Your task to perform on an android device: change timer sound Image 0: 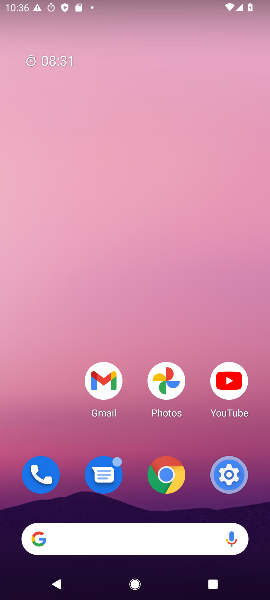
Step 0: drag from (124, 510) to (125, 57)
Your task to perform on an android device: change timer sound Image 1: 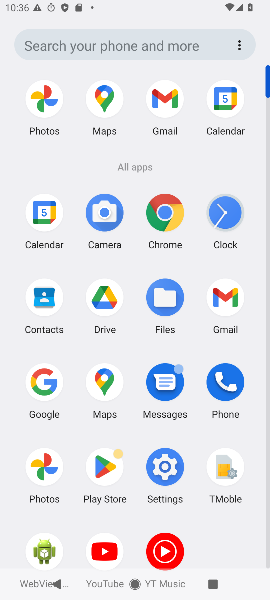
Step 1: click (222, 226)
Your task to perform on an android device: change timer sound Image 2: 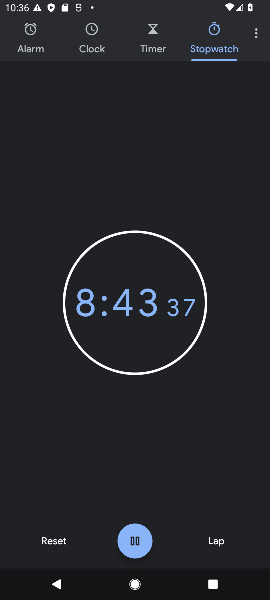
Step 2: click (53, 534)
Your task to perform on an android device: change timer sound Image 3: 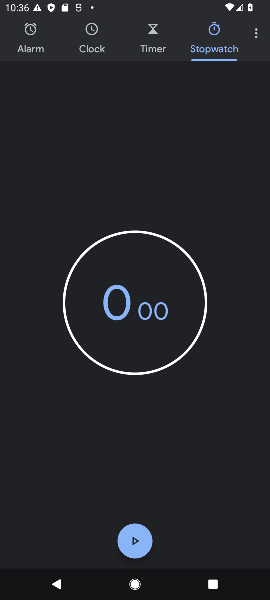
Step 3: click (254, 31)
Your task to perform on an android device: change timer sound Image 4: 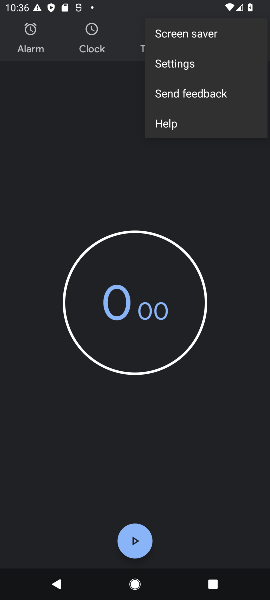
Step 4: click (171, 63)
Your task to perform on an android device: change timer sound Image 5: 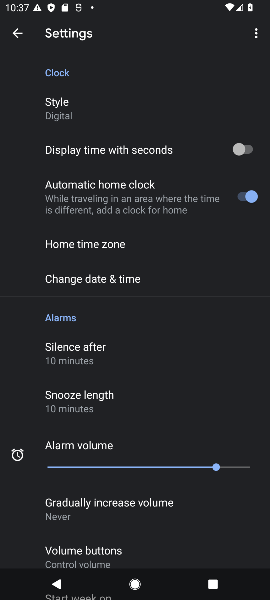
Step 5: drag from (132, 261) to (138, 220)
Your task to perform on an android device: change timer sound Image 6: 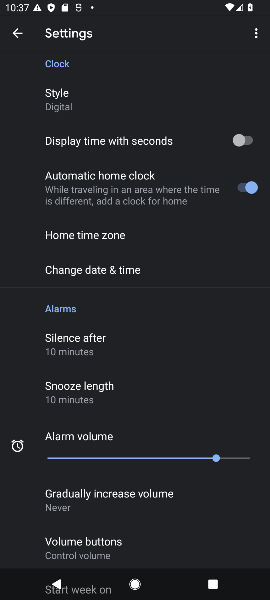
Step 6: drag from (94, 443) to (93, 193)
Your task to perform on an android device: change timer sound Image 7: 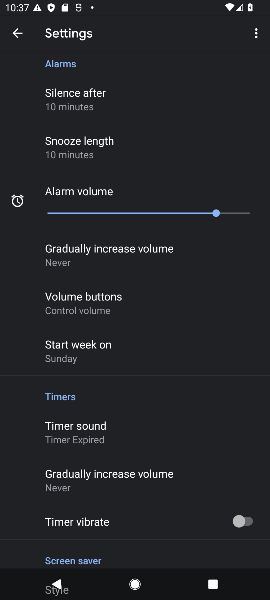
Step 7: click (71, 435)
Your task to perform on an android device: change timer sound Image 8: 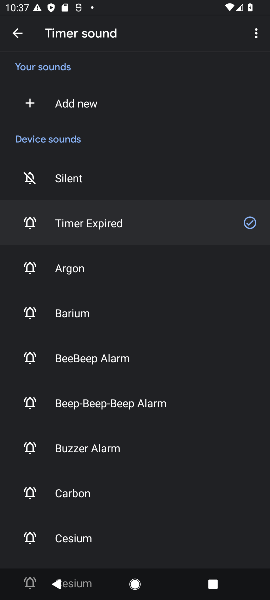
Step 8: click (73, 274)
Your task to perform on an android device: change timer sound Image 9: 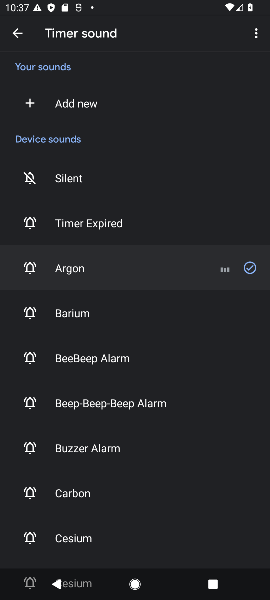
Step 9: click (98, 318)
Your task to perform on an android device: change timer sound Image 10: 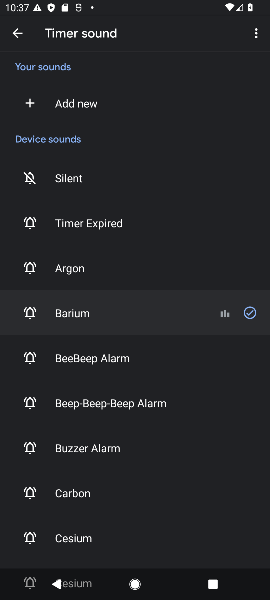
Step 10: task complete